Your task to perform on an android device: change notification settings in the gmail app Image 0: 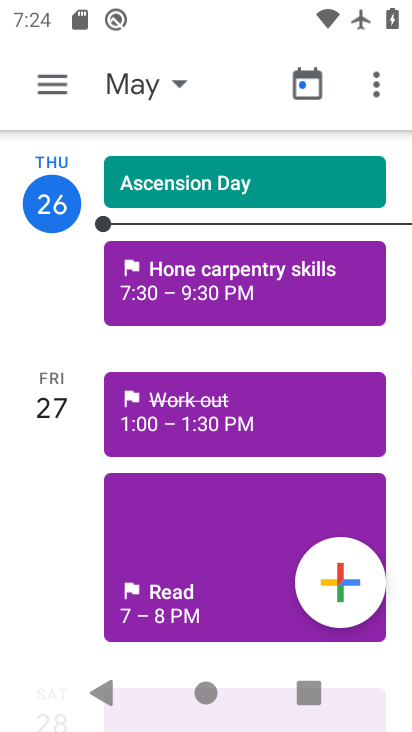
Step 0: press home button
Your task to perform on an android device: change notification settings in the gmail app Image 1: 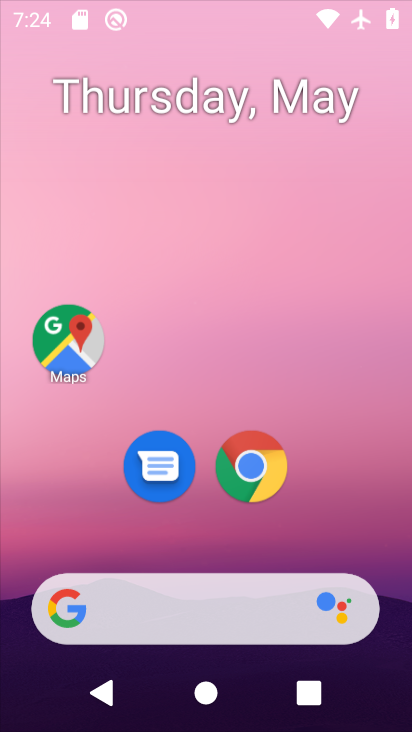
Step 1: press home button
Your task to perform on an android device: change notification settings in the gmail app Image 2: 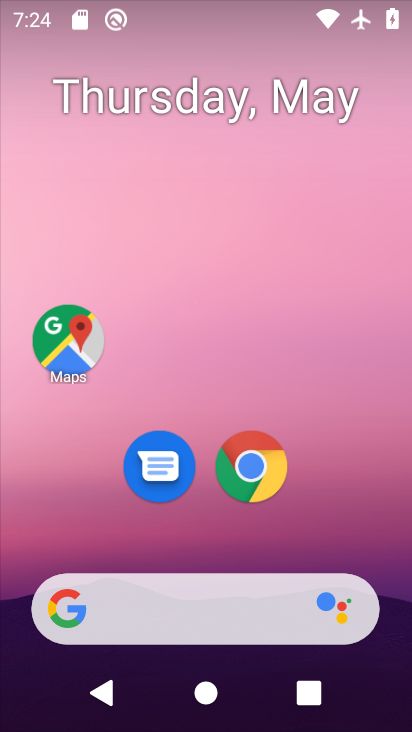
Step 2: drag from (405, 437) to (262, 26)
Your task to perform on an android device: change notification settings in the gmail app Image 3: 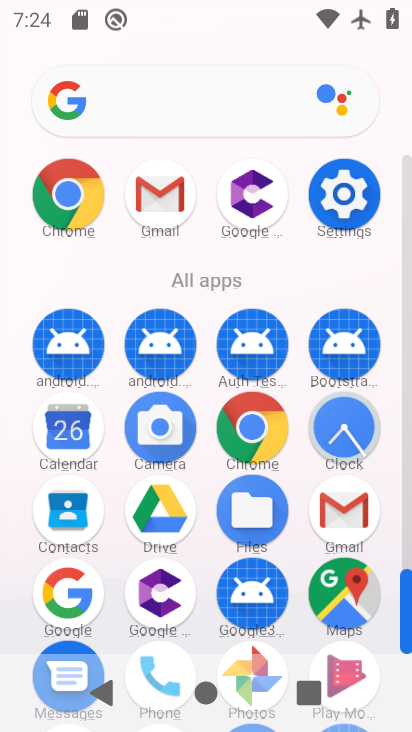
Step 3: click (161, 229)
Your task to perform on an android device: change notification settings in the gmail app Image 4: 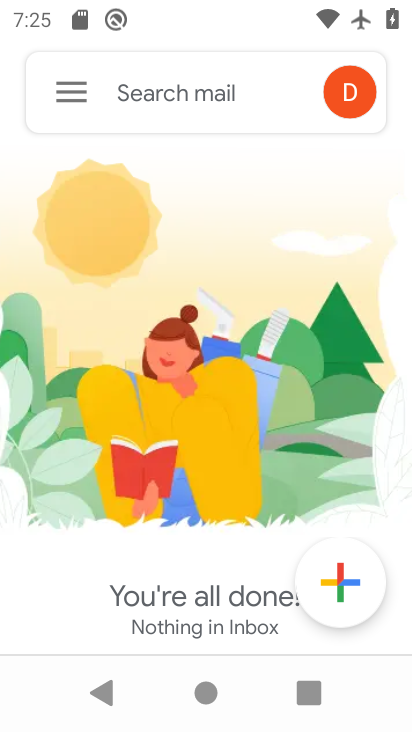
Step 4: click (84, 118)
Your task to perform on an android device: change notification settings in the gmail app Image 5: 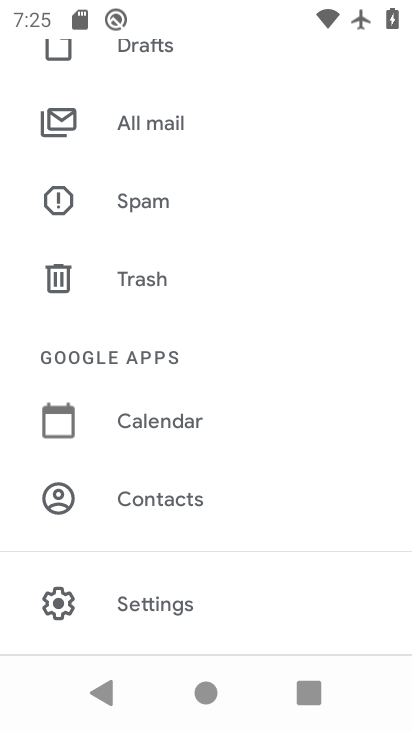
Step 5: click (141, 585)
Your task to perform on an android device: change notification settings in the gmail app Image 6: 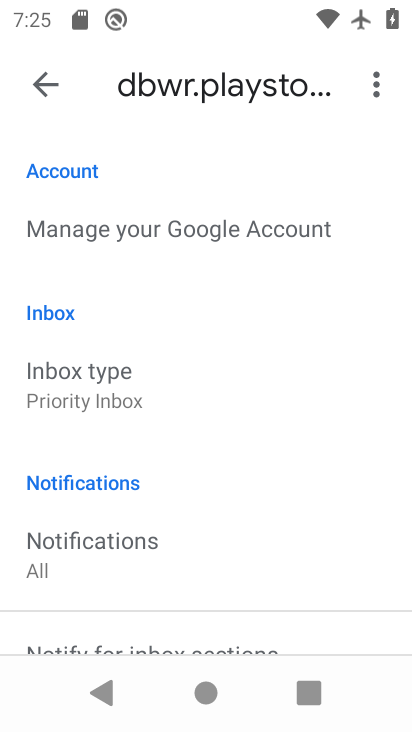
Step 6: click (153, 539)
Your task to perform on an android device: change notification settings in the gmail app Image 7: 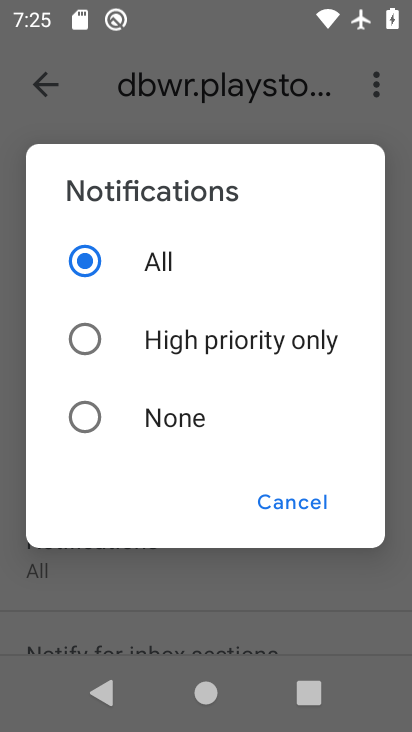
Step 7: click (120, 258)
Your task to perform on an android device: change notification settings in the gmail app Image 8: 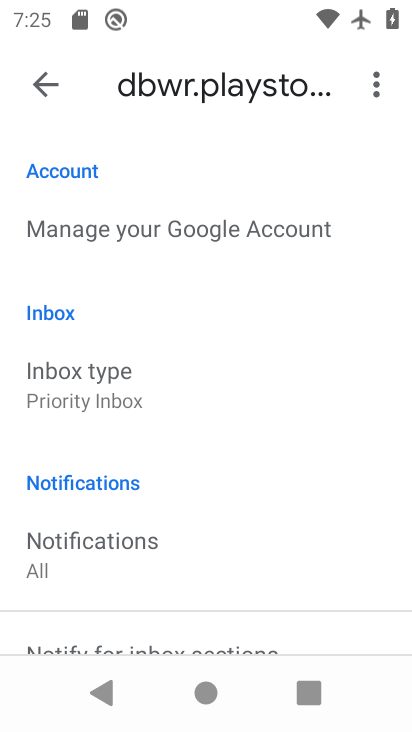
Step 8: task complete